Your task to perform on an android device: check battery use Image 0: 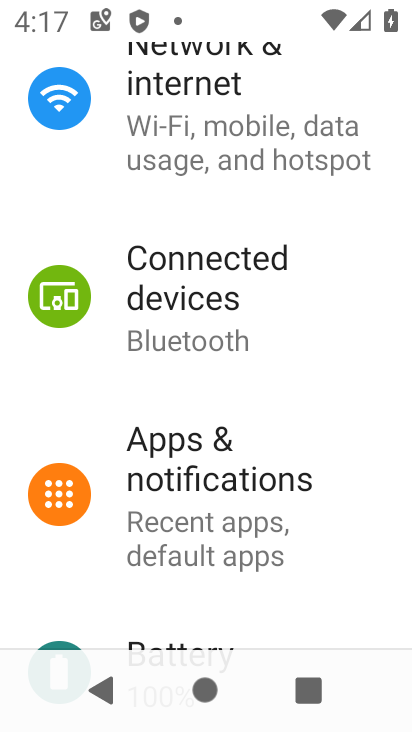
Step 0: drag from (239, 522) to (287, 139)
Your task to perform on an android device: check battery use Image 1: 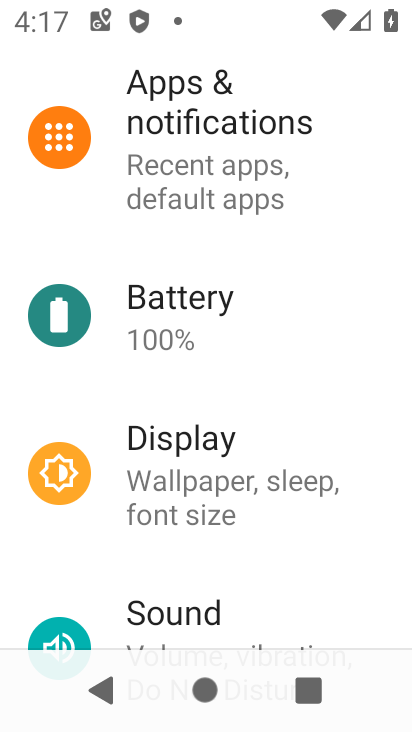
Step 1: click (197, 349)
Your task to perform on an android device: check battery use Image 2: 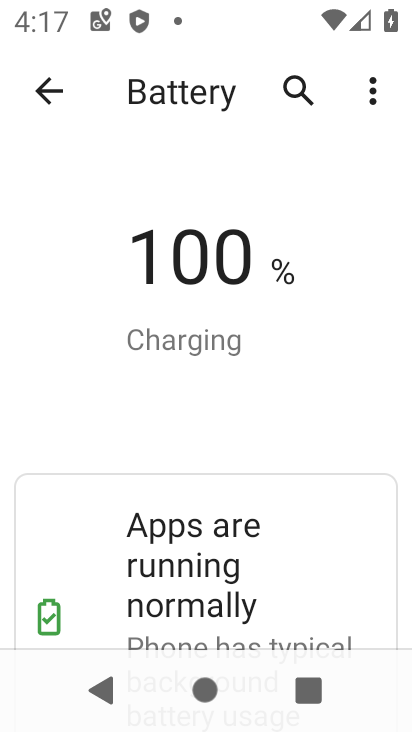
Step 2: click (364, 90)
Your task to perform on an android device: check battery use Image 3: 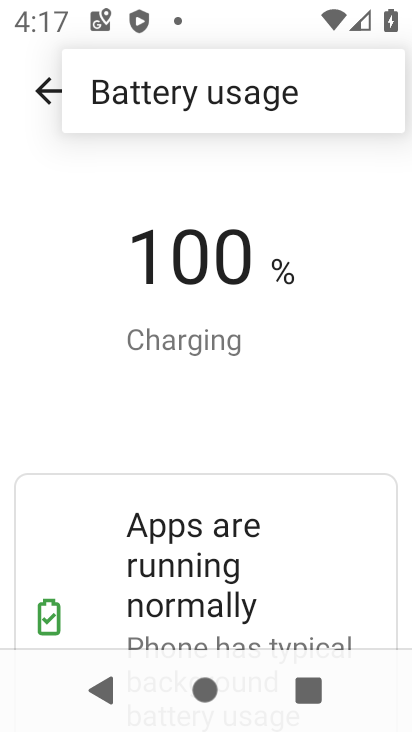
Step 3: click (209, 105)
Your task to perform on an android device: check battery use Image 4: 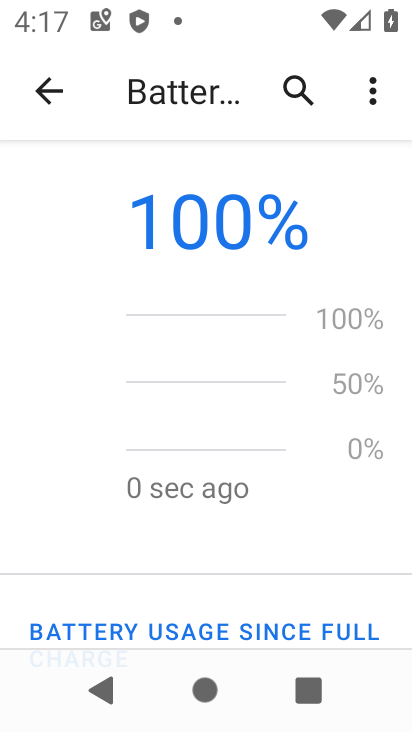
Step 4: task complete